Your task to perform on an android device: delete a single message in the gmail app Image 0: 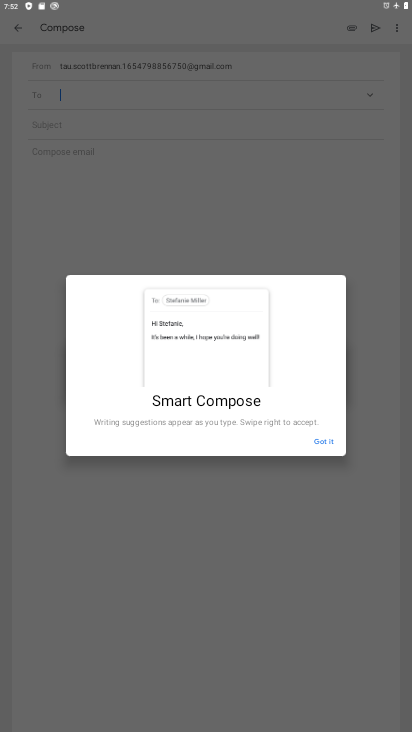
Step 0: press home button
Your task to perform on an android device: delete a single message in the gmail app Image 1: 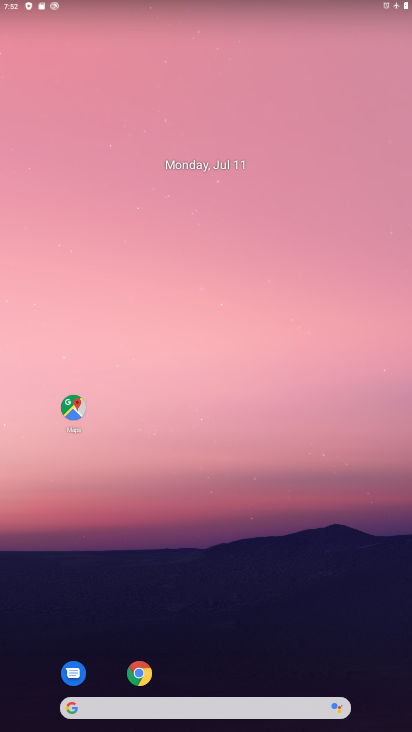
Step 1: drag from (330, 659) to (298, 164)
Your task to perform on an android device: delete a single message in the gmail app Image 2: 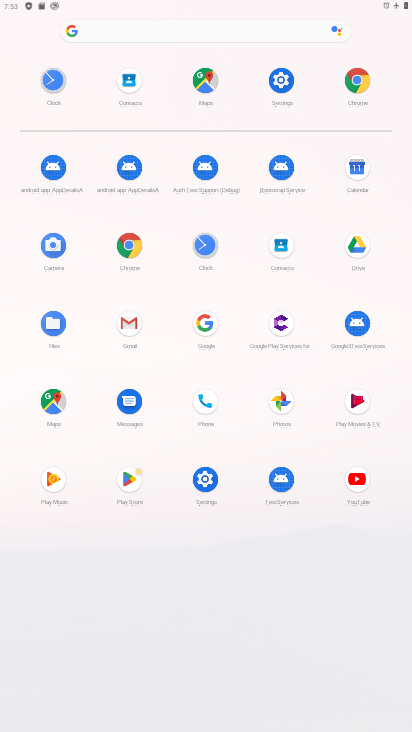
Step 2: click (123, 321)
Your task to perform on an android device: delete a single message in the gmail app Image 3: 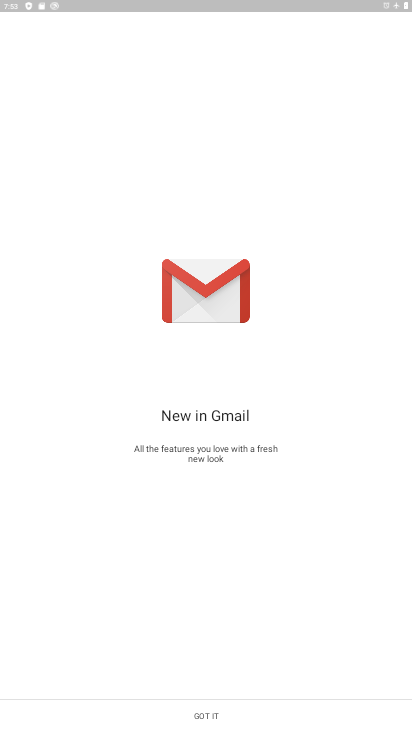
Step 3: click (195, 724)
Your task to perform on an android device: delete a single message in the gmail app Image 4: 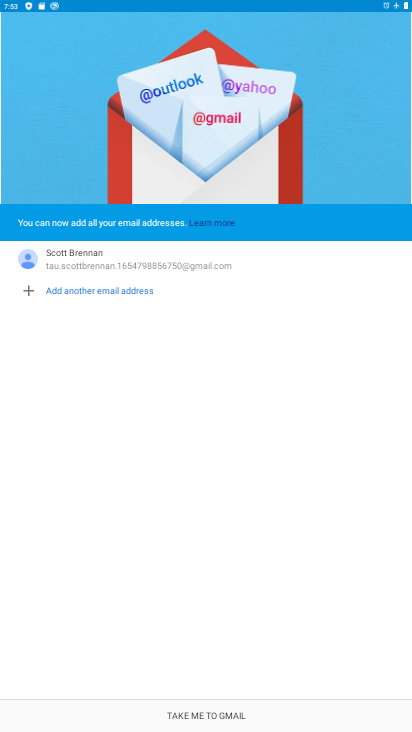
Step 4: click (195, 724)
Your task to perform on an android device: delete a single message in the gmail app Image 5: 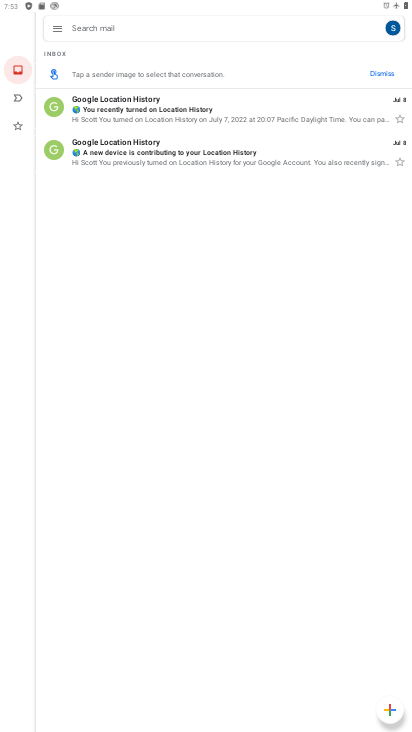
Step 5: click (293, 107)
Your task to perform on an android device: delete a single message in the gmail app Image 6: 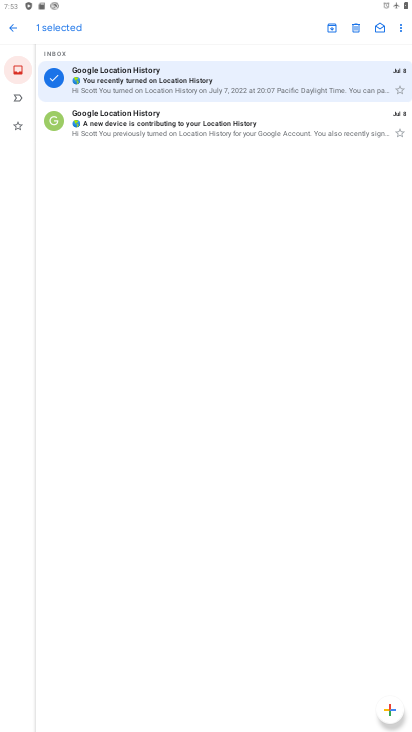
Step 6: click (357, 24)
Your task to perform on an android device: delete a single message in the gmail app Image 7: 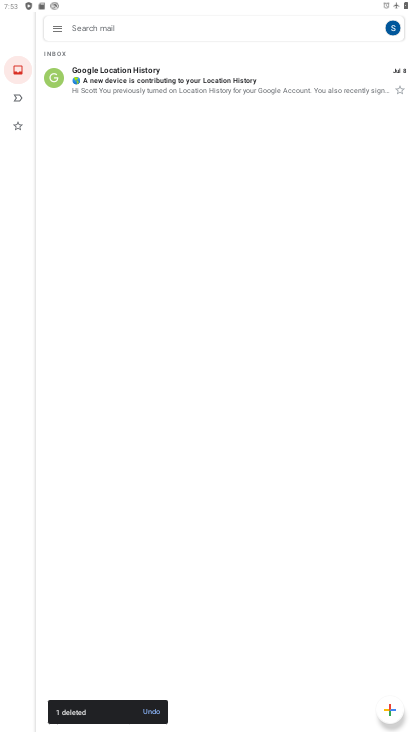
Step 7: task complete